Your task to perform on an android device: toggle pop-ups in chrome Image 0: 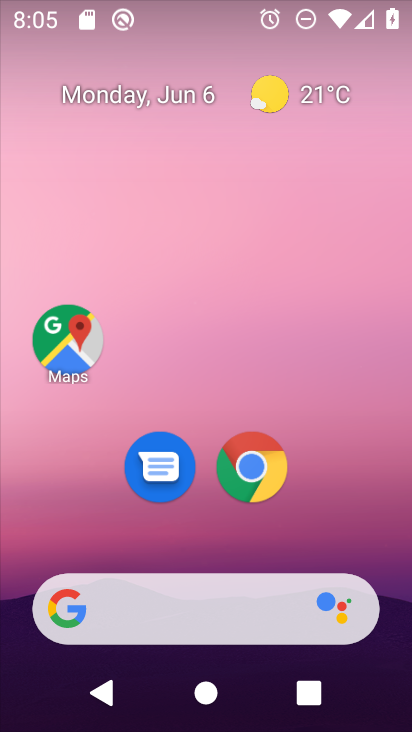
Step 0: drag from (347, 527) to (353, 186)
Your task to perform on an android device: toggle pop-ups in chrome Image 1: 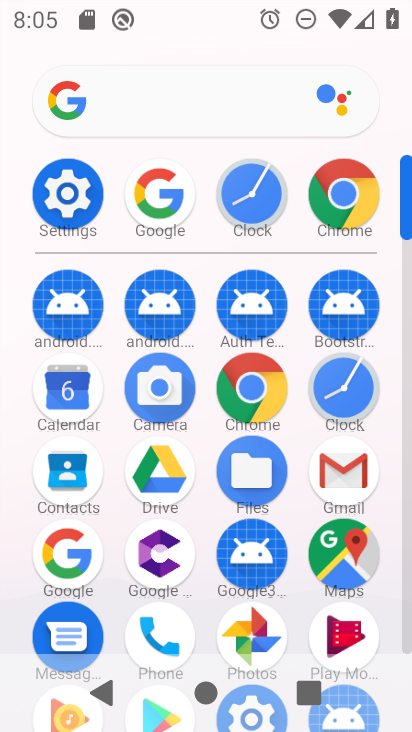
Step 1: click (353, 182)
Your task to perform on an android device: toggle pop-ups in chrome Image 2: 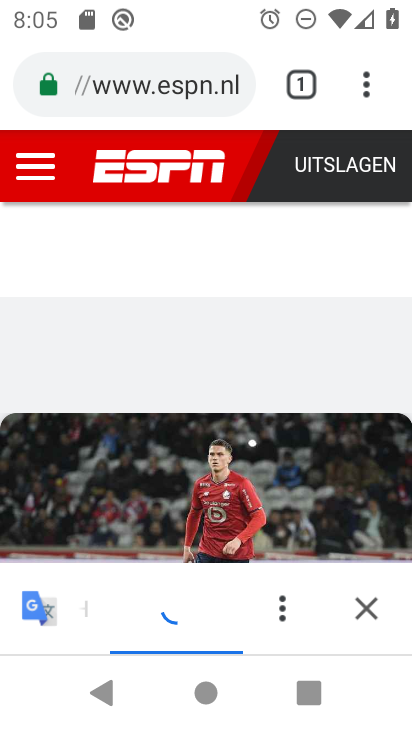
Step 2: click (367, 89)
Your task to perform on an android device: toggle pop-ups in chrome Image 3: 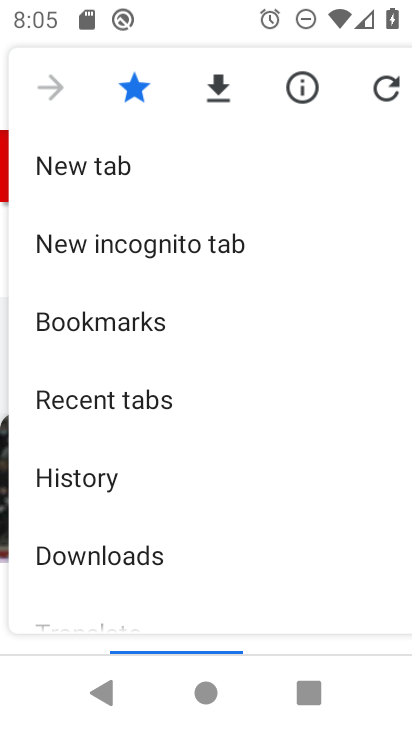
Step 3: drag from (353, 508) to (348, 308)
Your task to perform on an android device: toggle pop-ups in chrome Image 4: 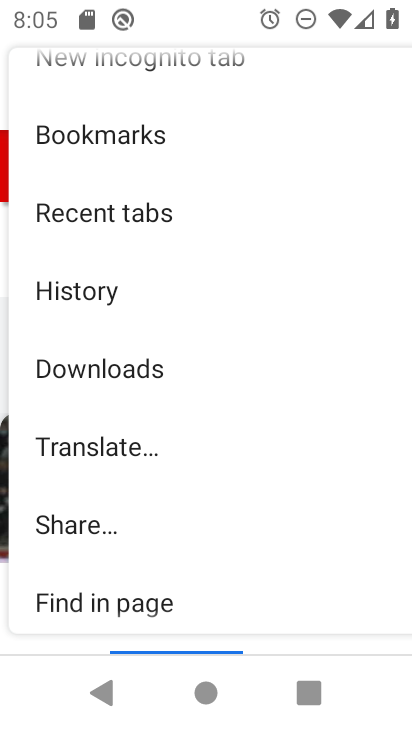
Step 4: drag from (343, 505) to (353, 347)
Your task to perform on an android device: toggle pop-ups in chrome Image 5: 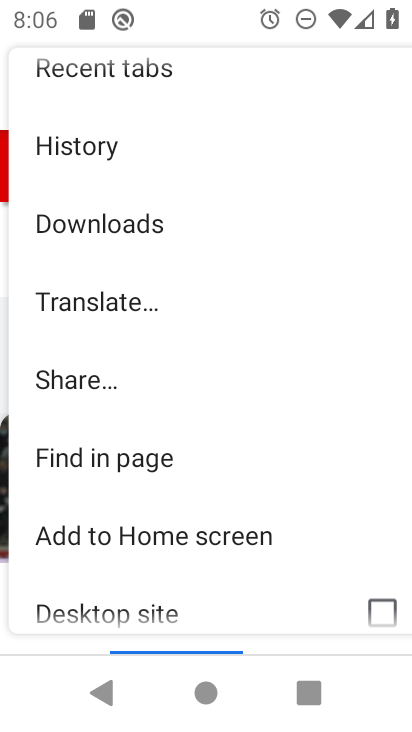
Step 5: drag from (337, 482) to (334, 369)
Your task to perform on an android device: toggle pop-ups in chrome Image 6: 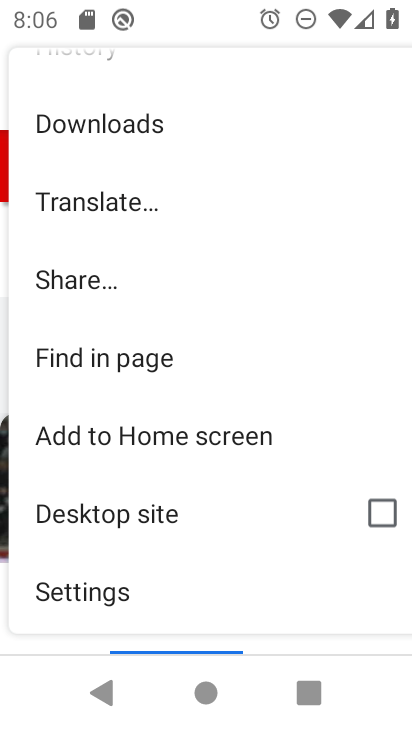
Step 6: drag from (313, 529) to (326, 360)
Your task to perform on an android device: toggle pop-ups in chrome Image 7: 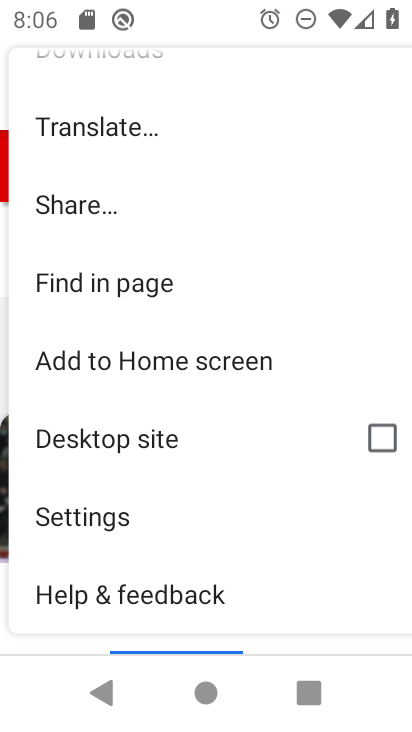
Step 7: click (114, 525)
Your task to perform on an android device: toggle pop-ups in chrome Image 8: 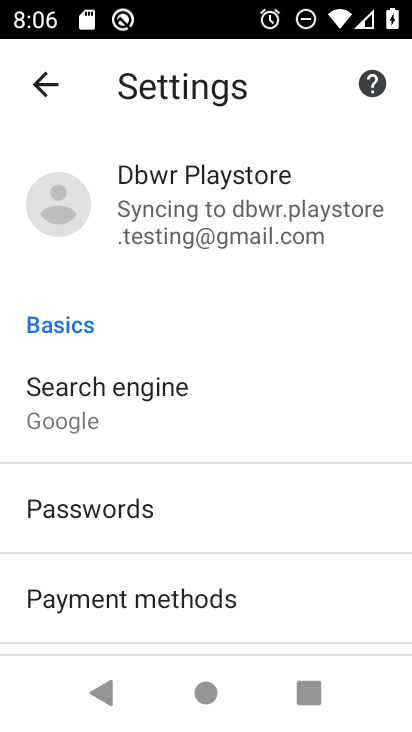
Step 8: drag from (326, 487) to (321, 370)
Your task to perform on an android device: toggle pop-ups in chrome Image 9: 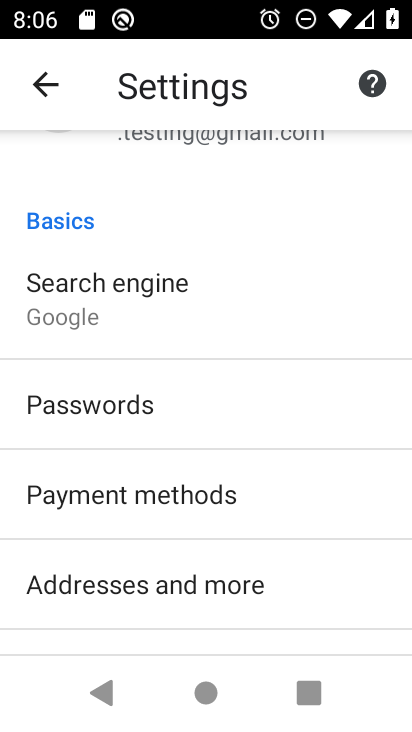
Step 9: drag from (356, 531) to (343, 367)
Your task to perform on an android device: toggle pop-ups in chrome Image 10: 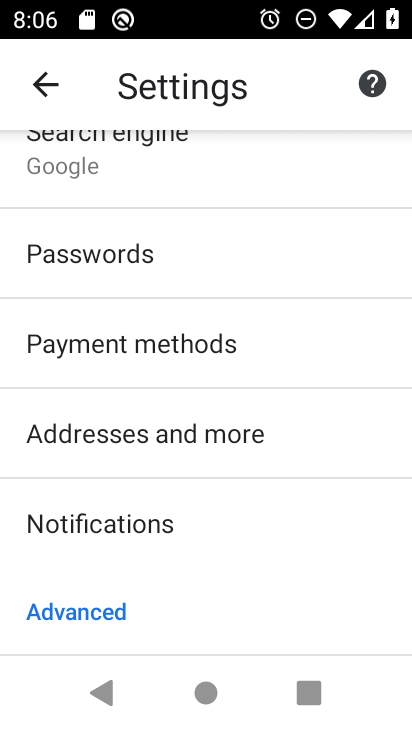
Step 10: drag from (351, 534) to (328, 367)
Your task to perform on an android device: toggle pop-ups in chrome Image 11: 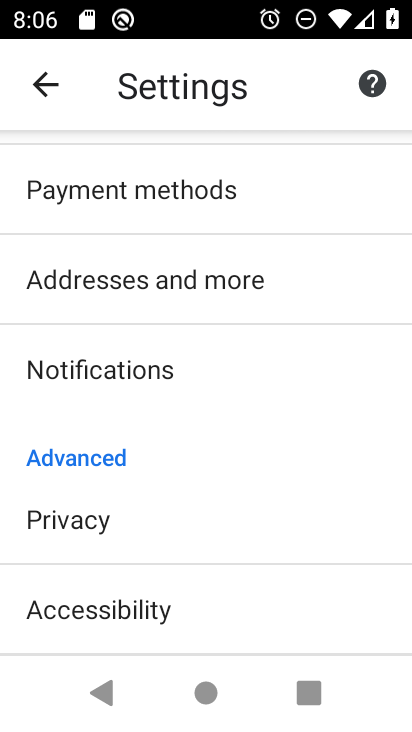
Step 11: drag from (325, 524) to (336, 422)
Your task to perform on an android device: toggle pop-ups in chrome Image 12: 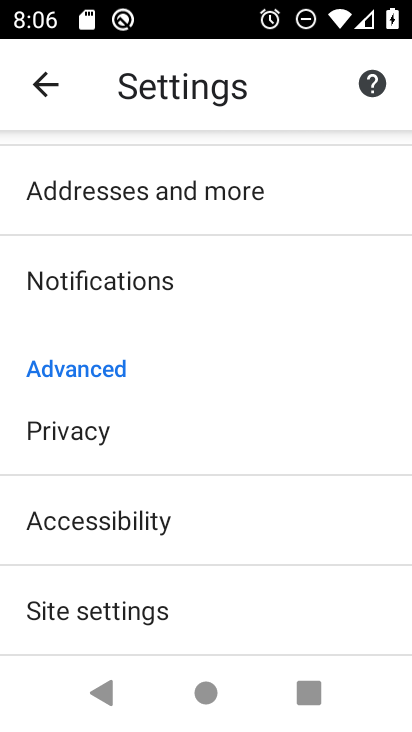
Step 12: drag from (341, 521) to (329, 393)
Your task to perform on an android device: toggle pop-ups in chrome Image 13: 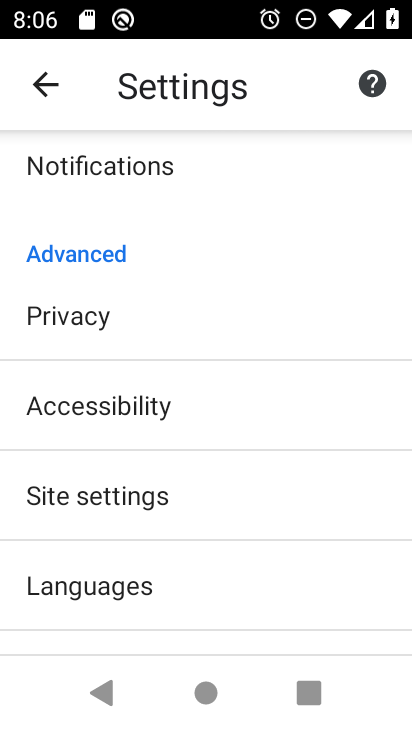
Step 13: click (239, 495)
Your task to perform on an android device: toggle pop-ups in chrome Image 14: 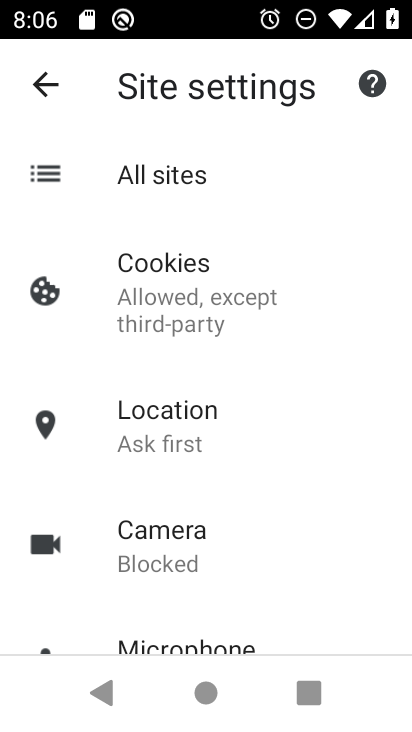
Step 14: drag from (328, 500) to (335, 337)
Your task to perform on an android device: toggle pop-ups in chrome Image 15: 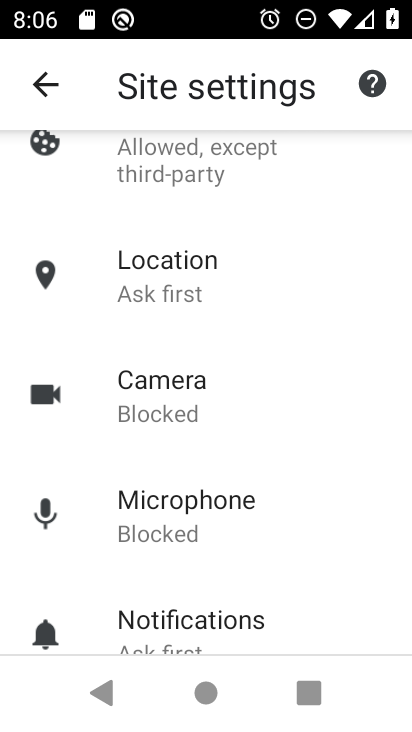
Step 15: drag from (320, 477) to (315, 384)
Your task to perform on an android device: toggle pop-ups in chrome Image 16: 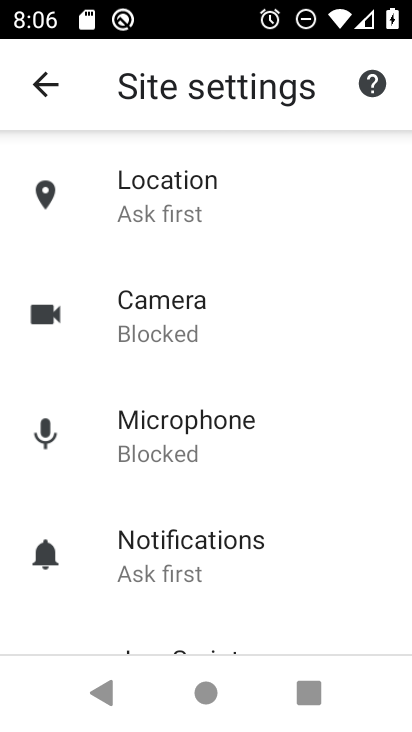
Step 16: drag from (335, 583) to (320, 431)
Your task to perform on an android device: toggle pop-ups in chrome Image 17: 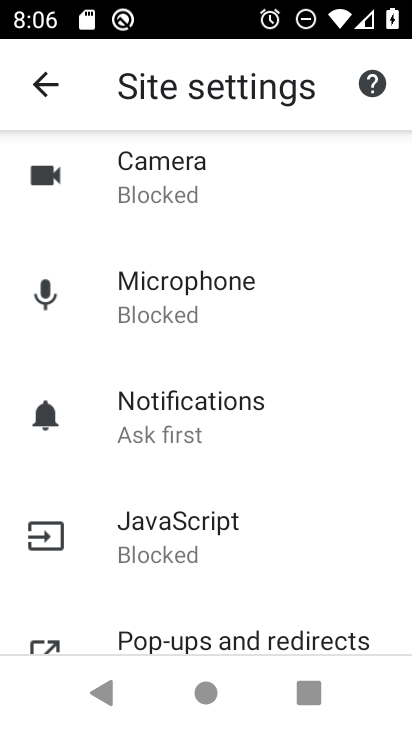
Step 17: drag from (331, 540) to (334, 369)
Your task to perform on an android device: toggle pop-ups in chrome Image 18: 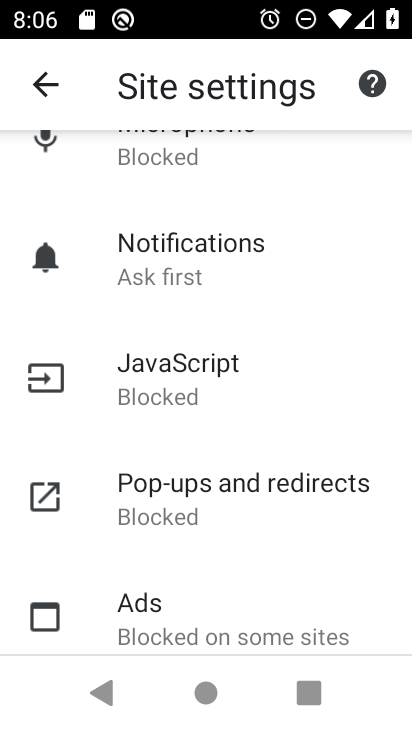
Step 18: click (255, 507)
Your task to perform on an android device: toggle pop-ups in chrome Image 19: 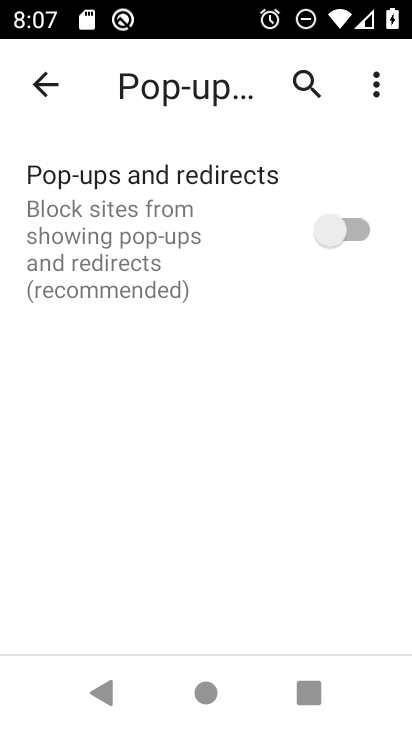
Step 19: click (333, 228)
Your task to perform on an android device: toggle pop-ups in chrome Image 20: 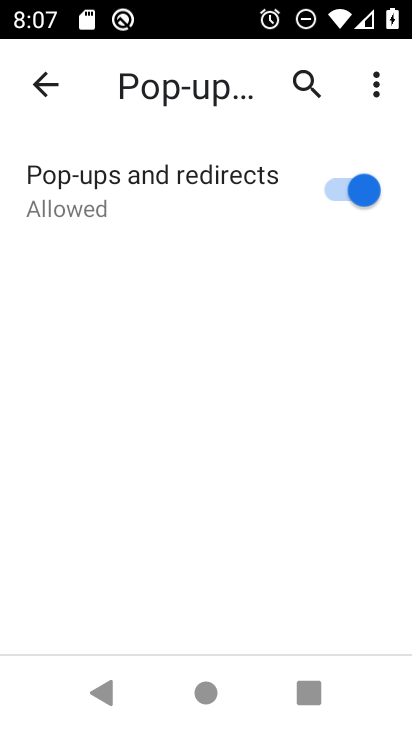
Step 20: task complete